Your task to perform on an android device: open a bookmark in the chrome app Image 0: 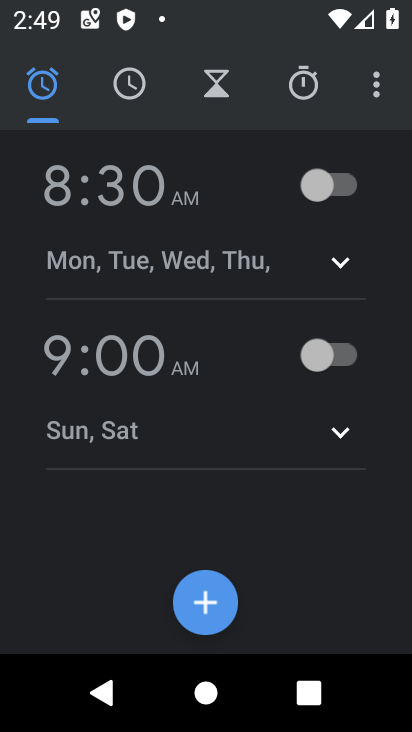
Step 0: task complete